Your task to perform on an android device: manage bookmarks in the chrome app Image 0: 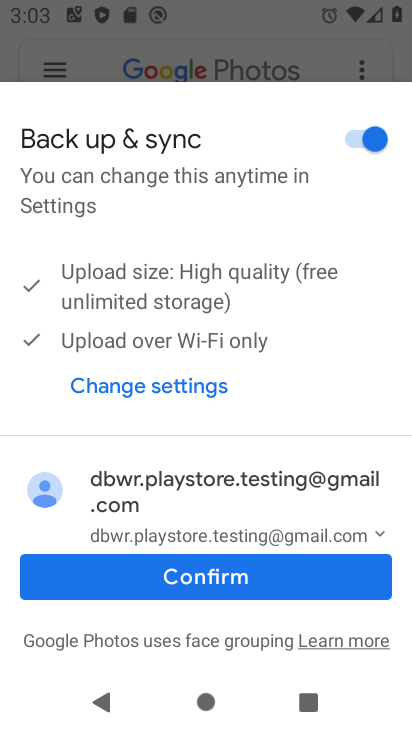
Step 0: press home button
Your task to perform on an android device: manage bookmarks in the chrome app Image 1: 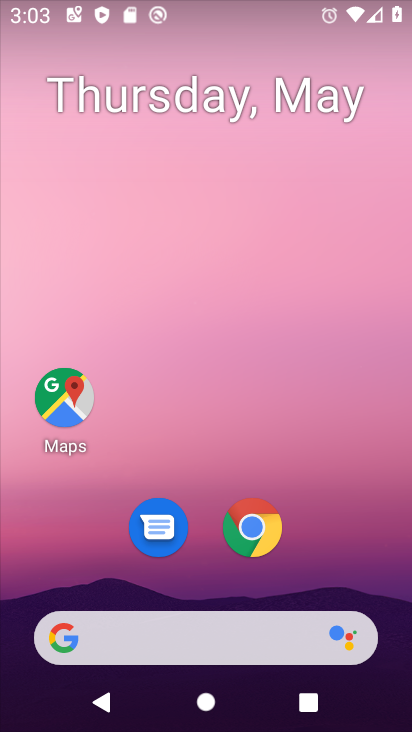
Step 1: click (236, 526)
Your task to perform on an android device: manage bookmarks in the chrome app Image 2: 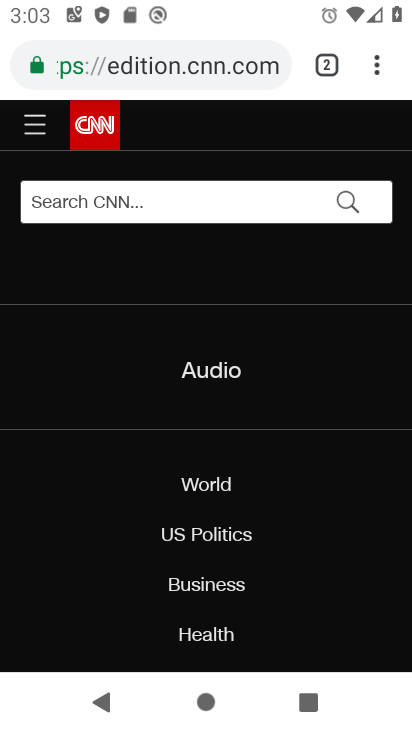
Step 2: task complete